Your task to perform on an android device: change the clock display to digital Image 0: 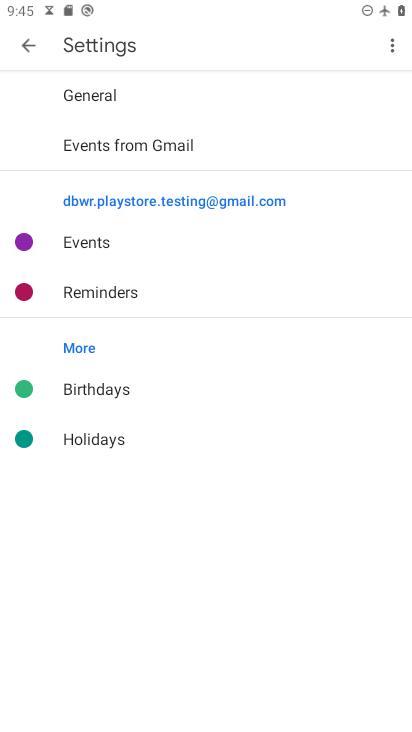
Step 0: press home button
Your task to perform on an android device: change the clock display to digital Image 1: 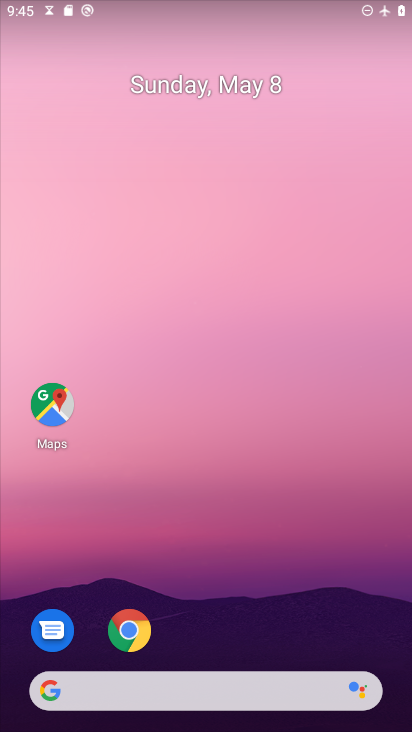
Step 1: drag from (198, 683) to (298, 211)
Your task to perform on an android device: change the clock display to digital Image 2: 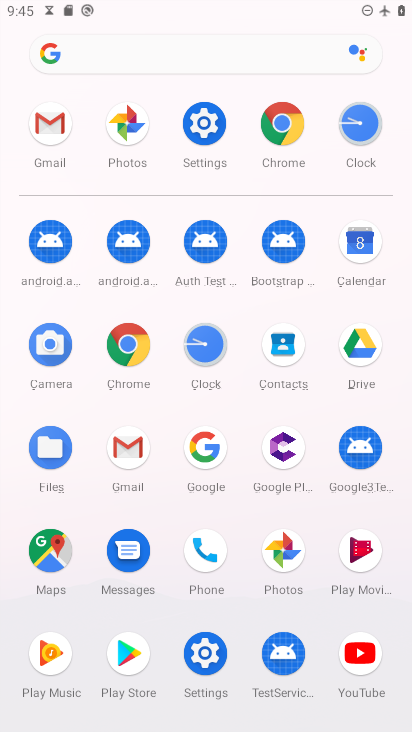
Step 2: click (197, 345)
Your task to perform on an android device: change the clock display to digital Image 3: 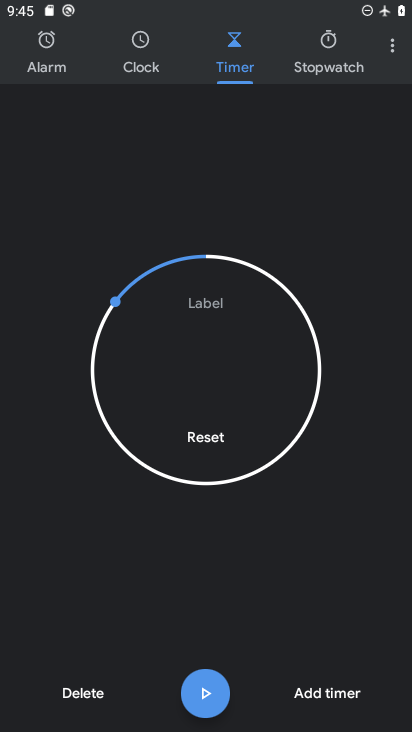
Step 3: click (393, 51)
Your task to perform on an android device: change the clock display to digital Image 4: 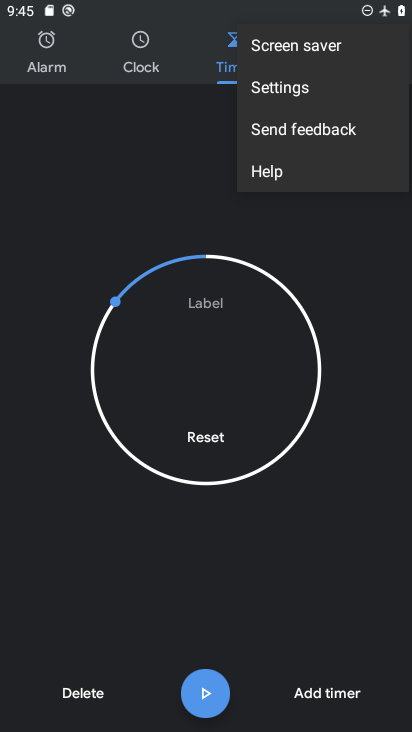
Step 4: click (303, 79)
Your task to perform on an android device: change the clock display to digital Image 5: 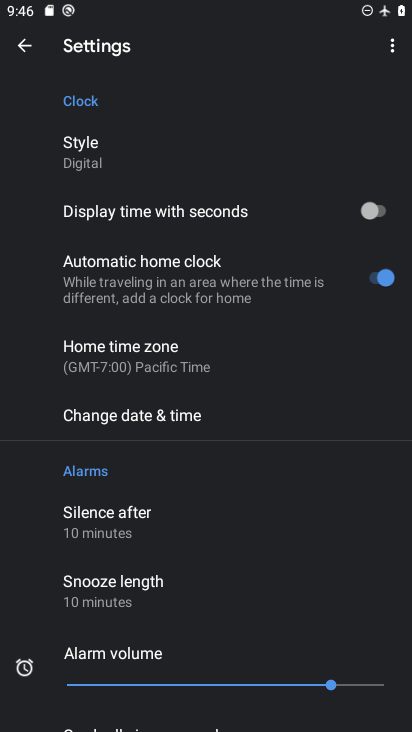
Step 5: task complete